Your task to perform on an android device: Show me the alarms in the clock app Image 0: 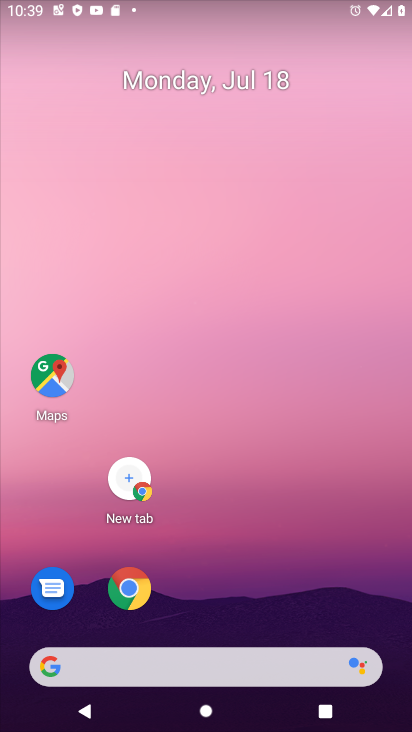
Step 0: drag from (191, 606) to (177, 174)
Your task to perform on an android device: Show me the alarms in the clock app Image 1: 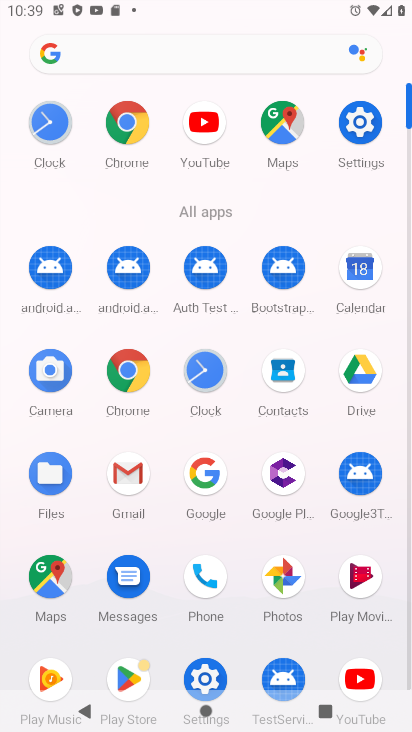
Step 1: click (53, 124)
Your task to perform on an android device: Show me the alarms in the clock app Image 2: 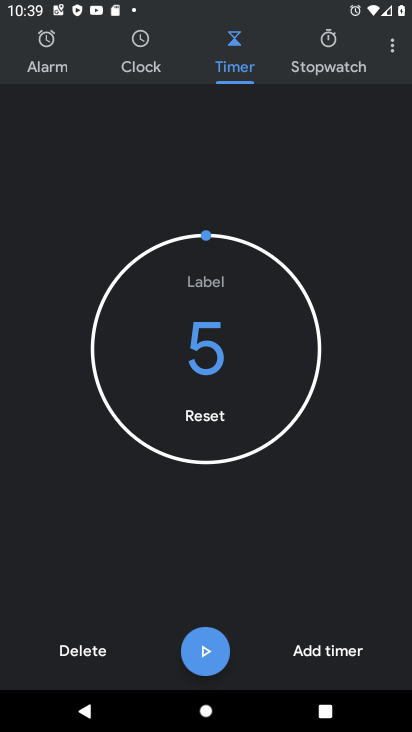
Step 2: click (49, 79)
Your task to perform on an android device: Show me the alarms in the clock app Image 3: 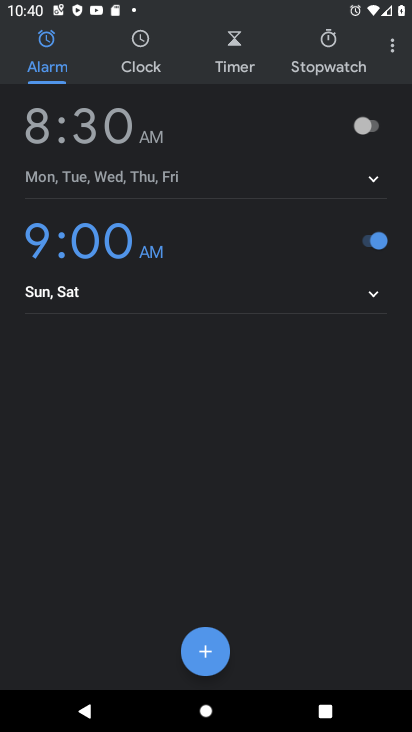
Step 3: task complete